Your task to perform on an android device: change the clock style Image 0: 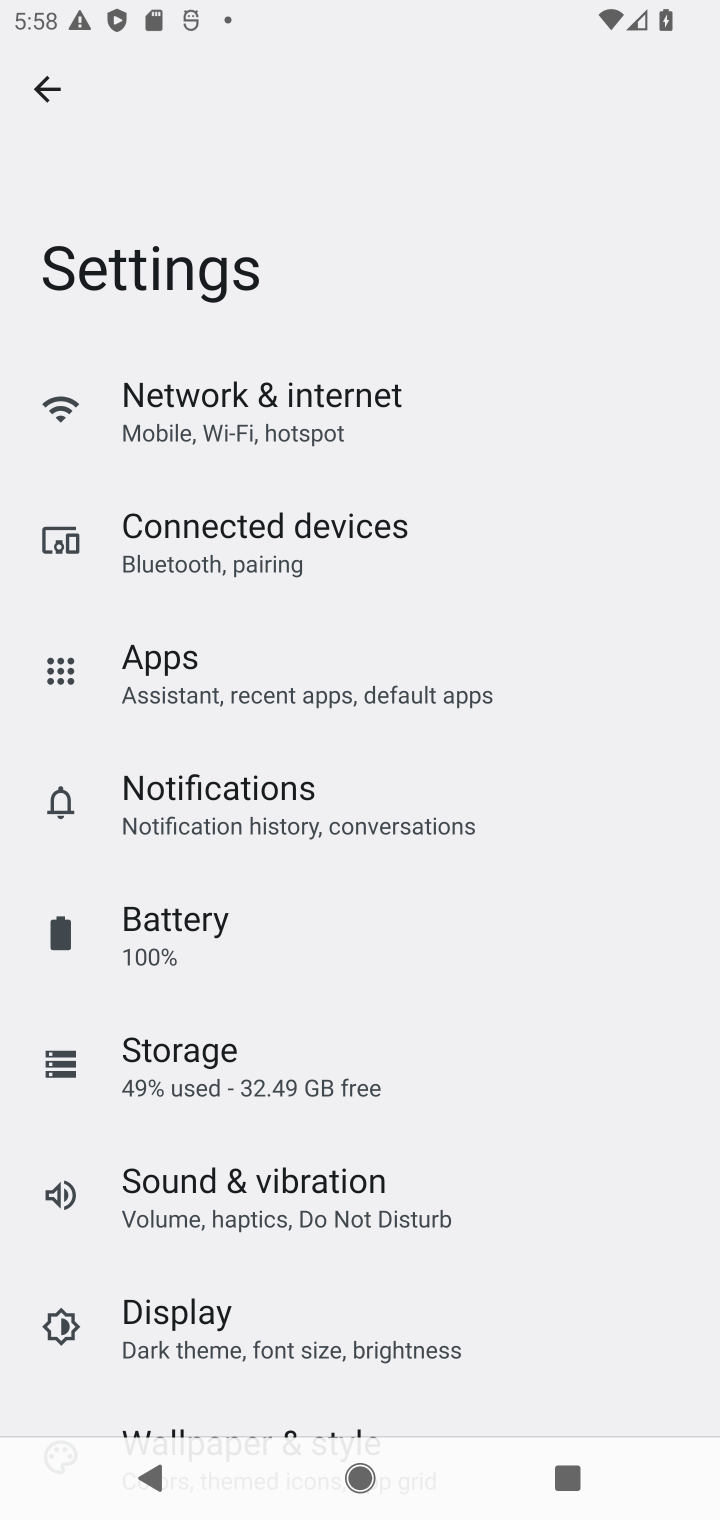
Step 0: press home button
Your task to perform on an android device: change the clock style Image 1: 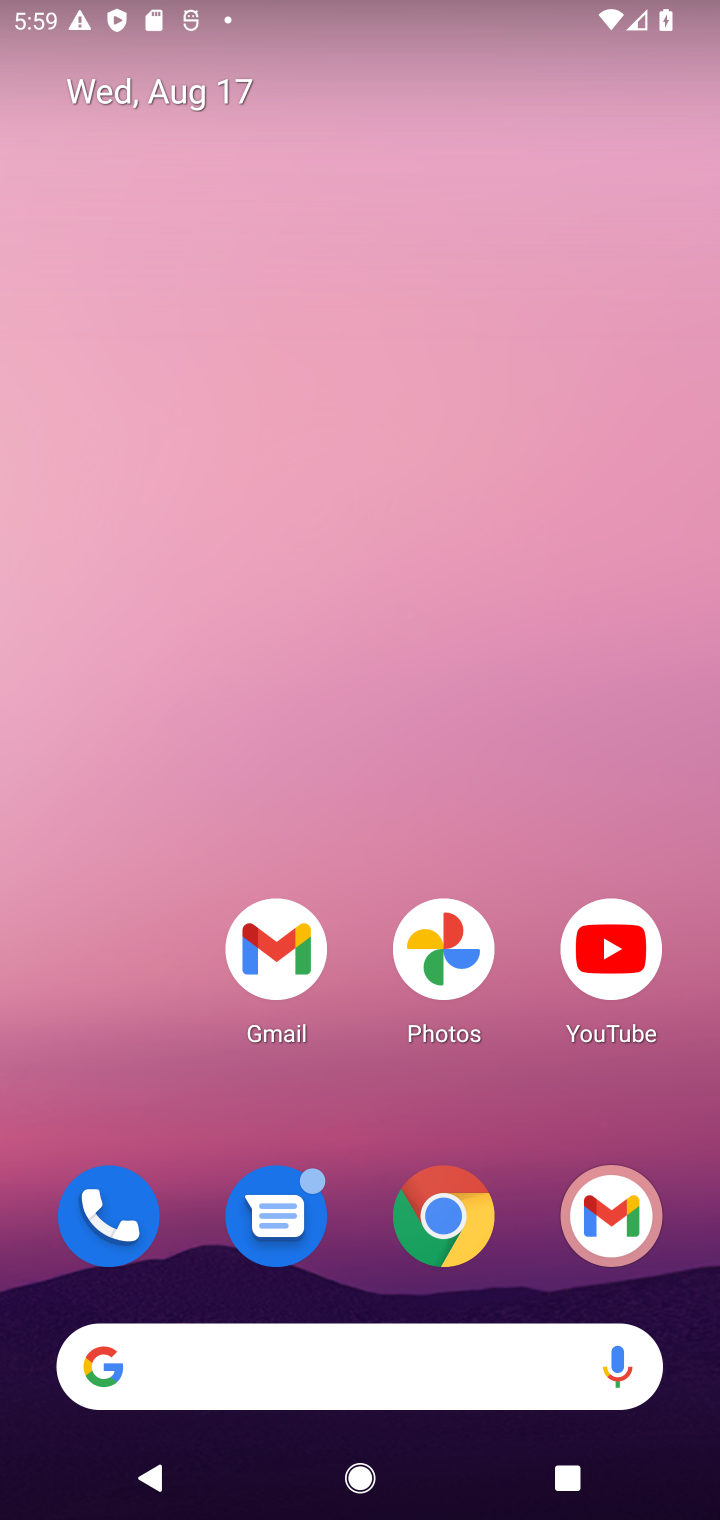
Step 1: drag from (395, 1257) to (310, 145)
Your task to perform on an android device: change the clock style Image 2: 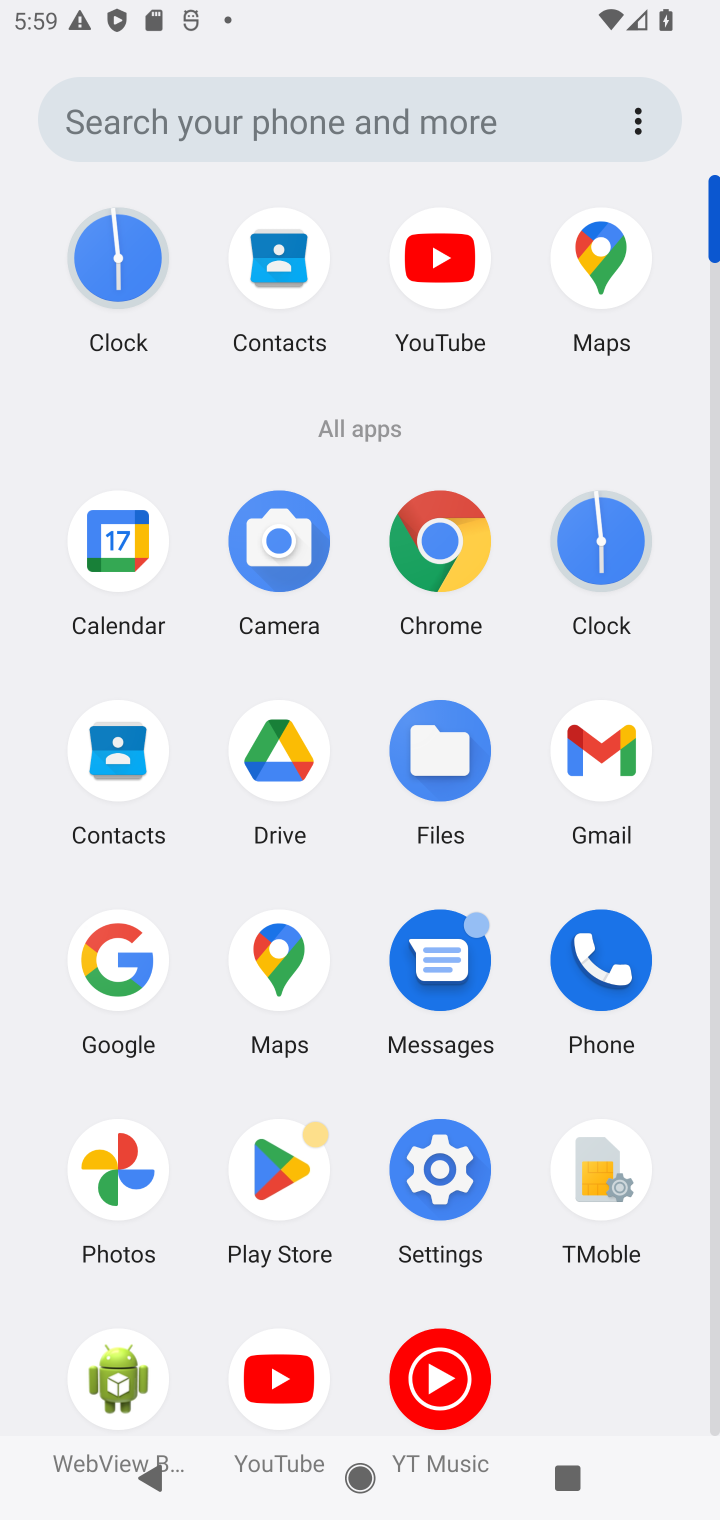
Step 2: click (585, 505)
Your task to perform on an android device: change the clock style Image 3: 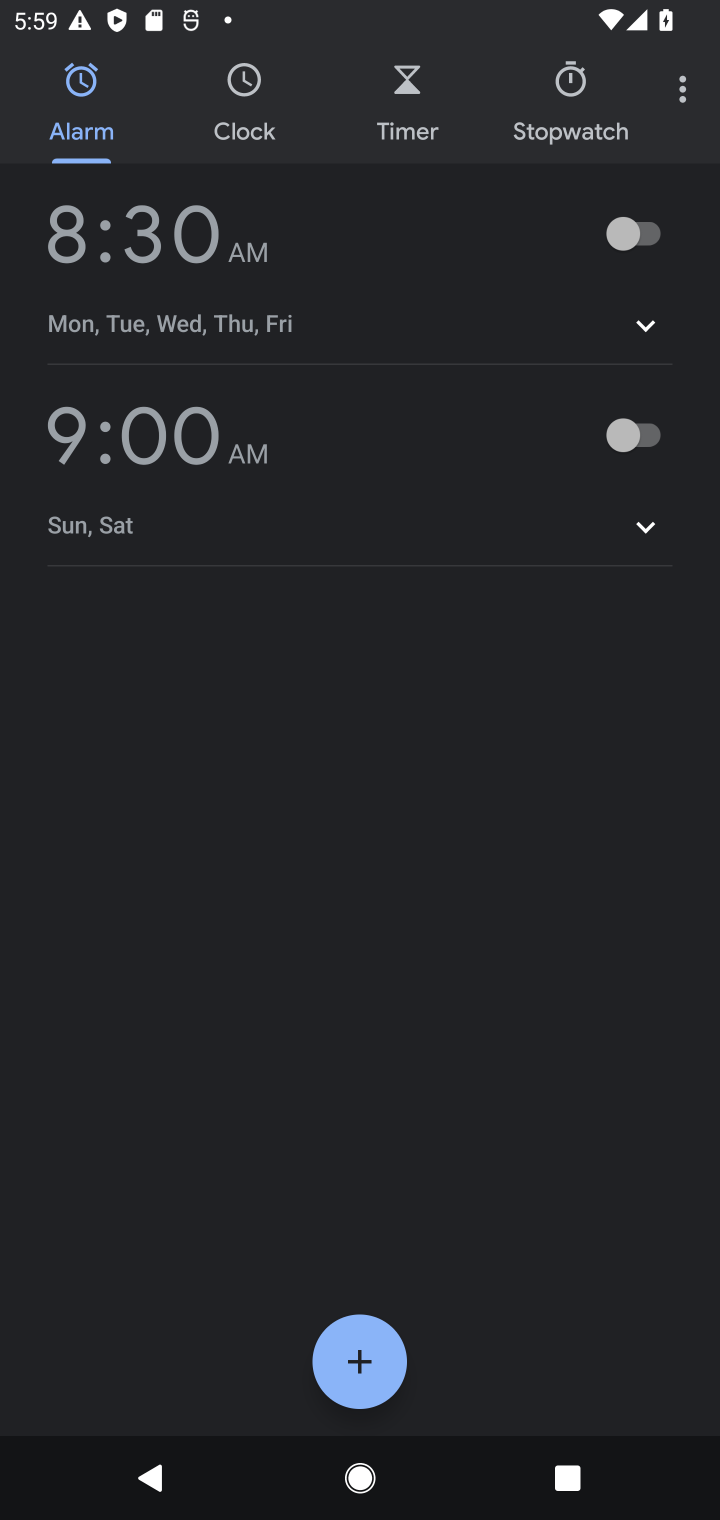
Step 3: click (684, 89)
Your task to perform on an android device: change the clock style Image 4: 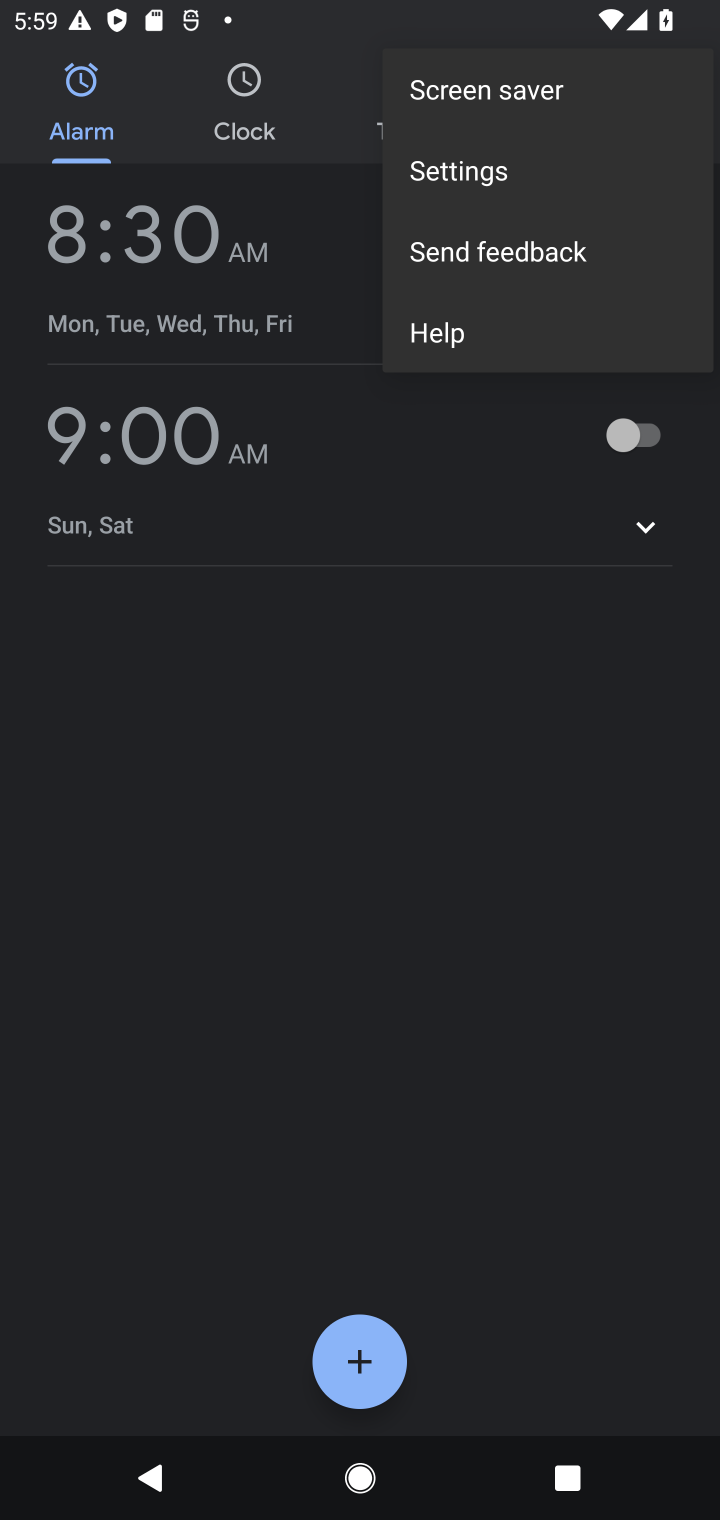
Step 4: click (480, 165)
Your task to perform on an android device: change the clock style Image 5: 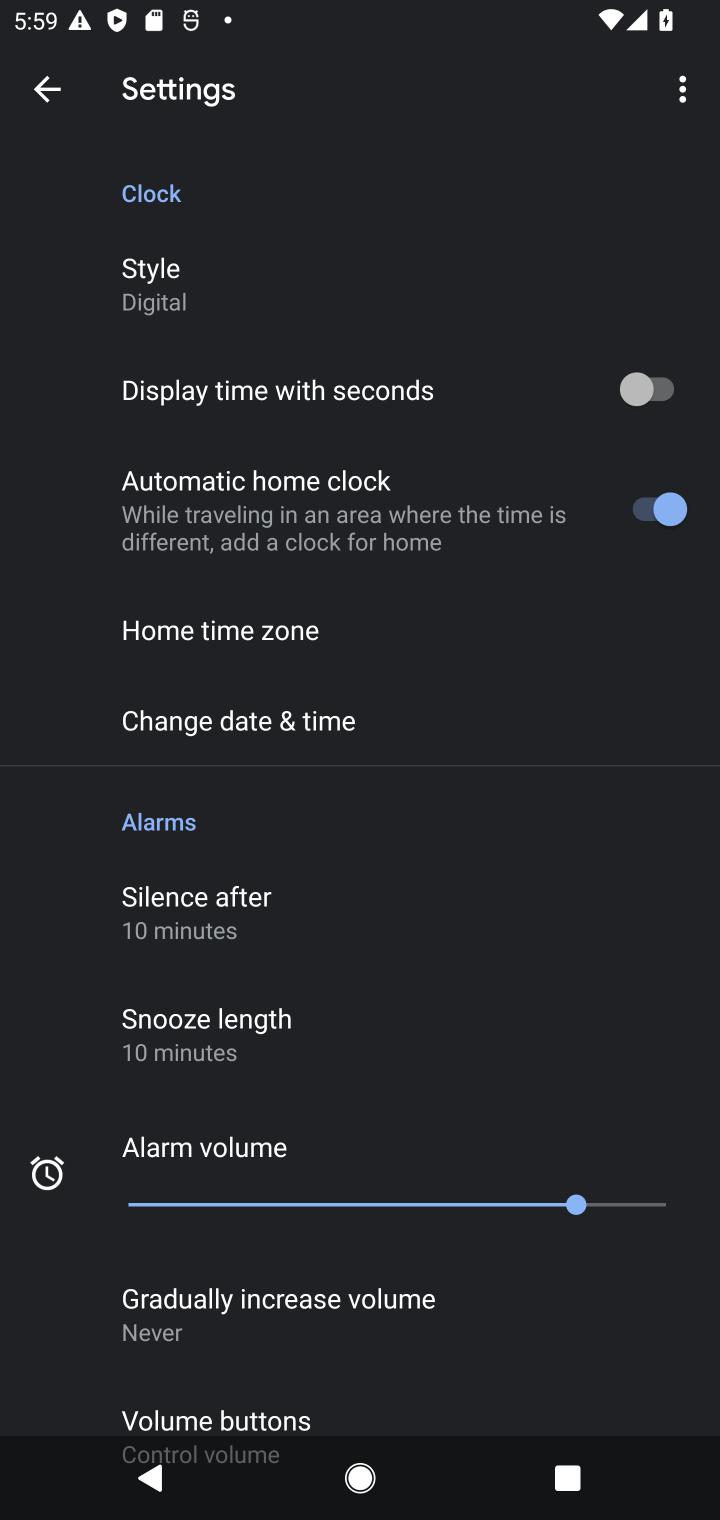
Step 5: click (137, 277)
Your task to perform on an android device: change the clock style Image 6: 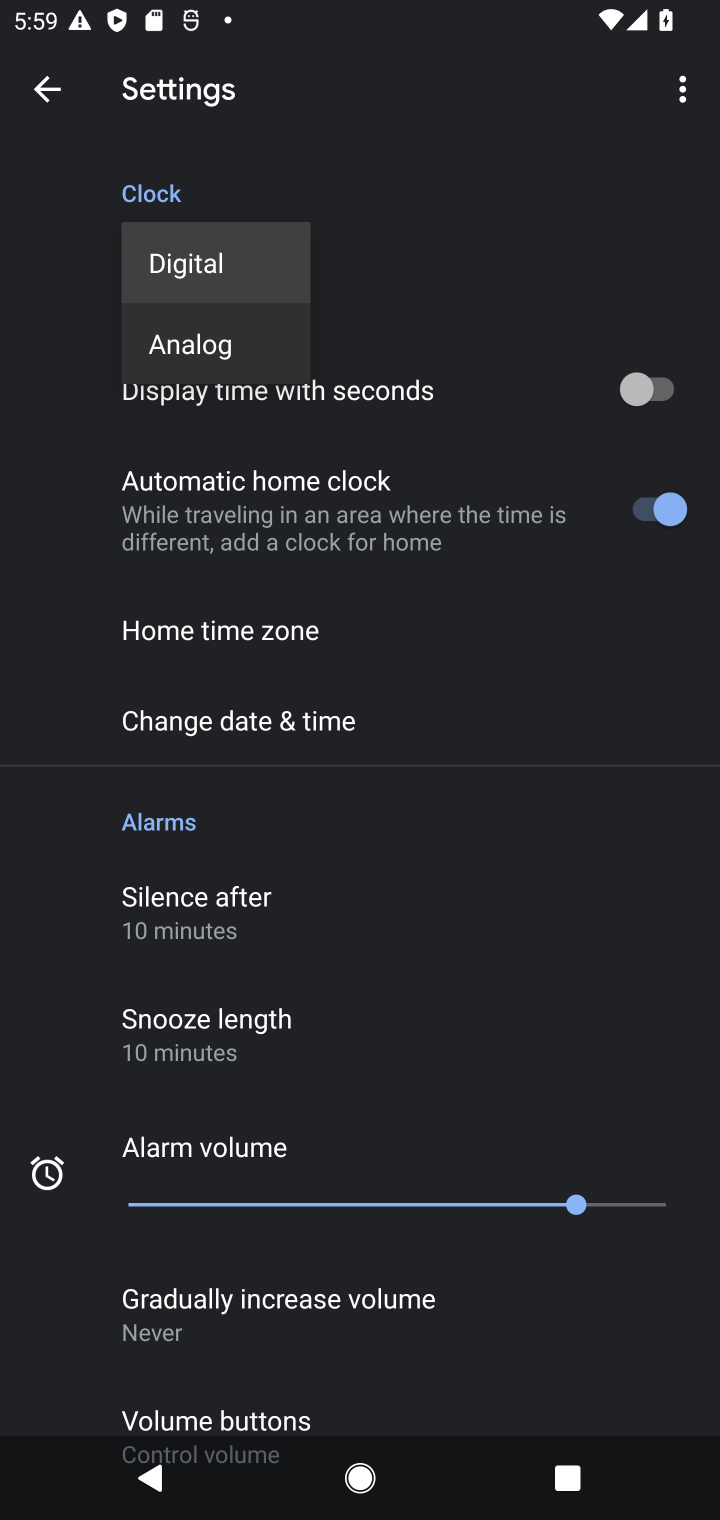
Step 6: click (220, 340)
Your task to perform on an android device: change the clock style Image 7: 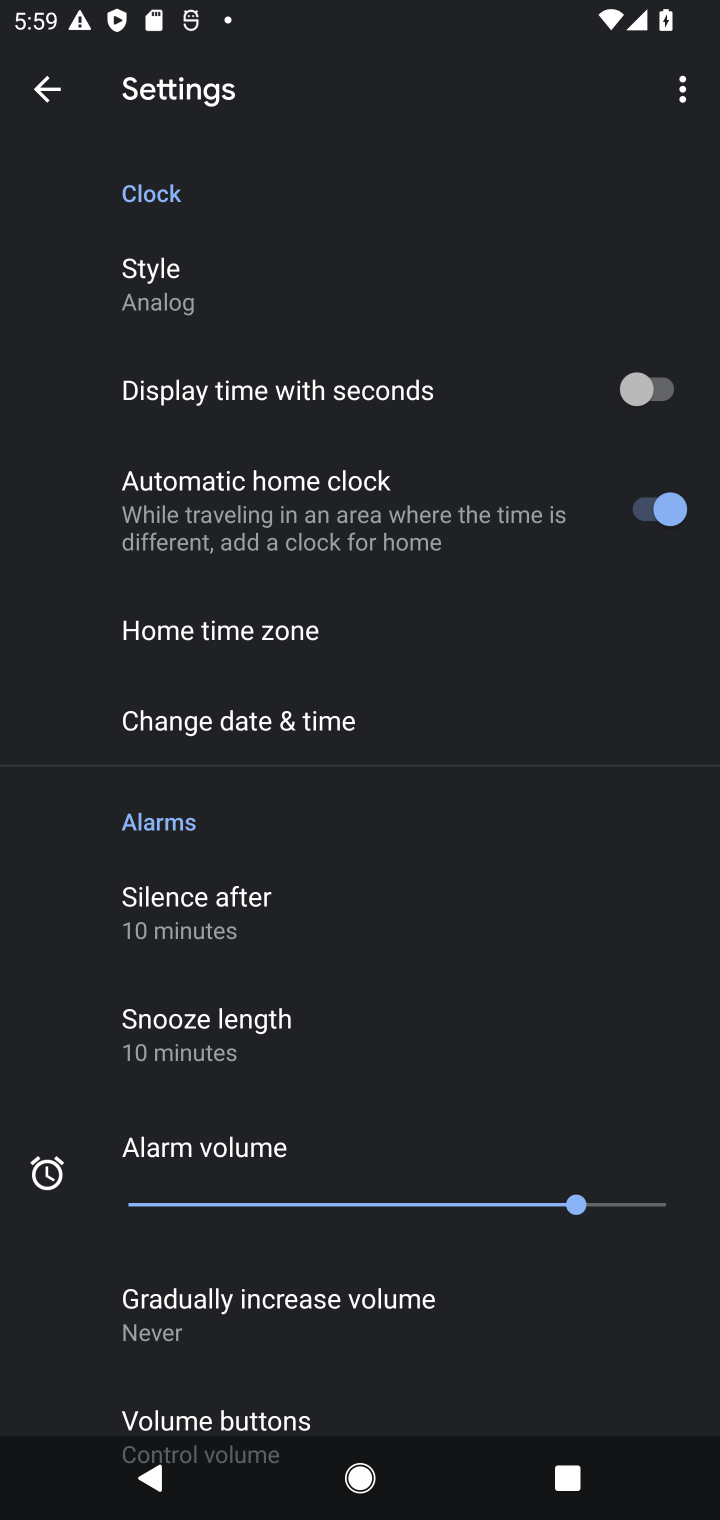
Step 7: task complete